Your task to perform on an android device: Go to network settings Image 0: 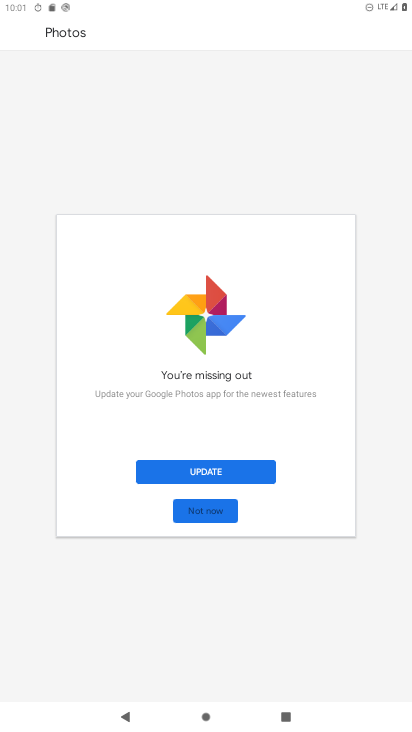
Step 0: drag from (204, 11) to (255, 574)
Your task to perform on an android device: Go to network settings Image 1: 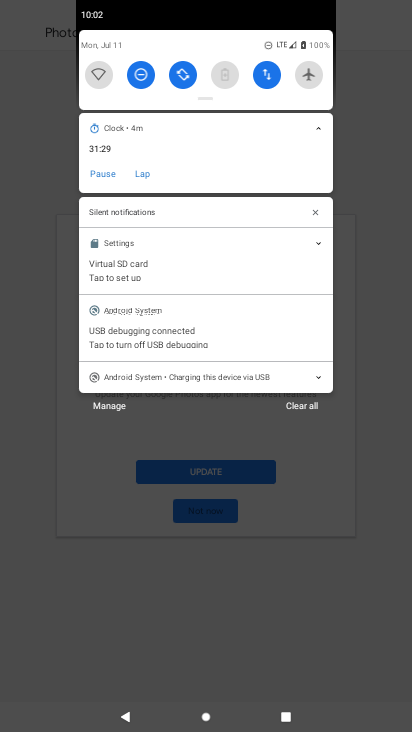
Step 1: click (271, 81)
Your task to perform on an android device: Go to network settings Image 2: 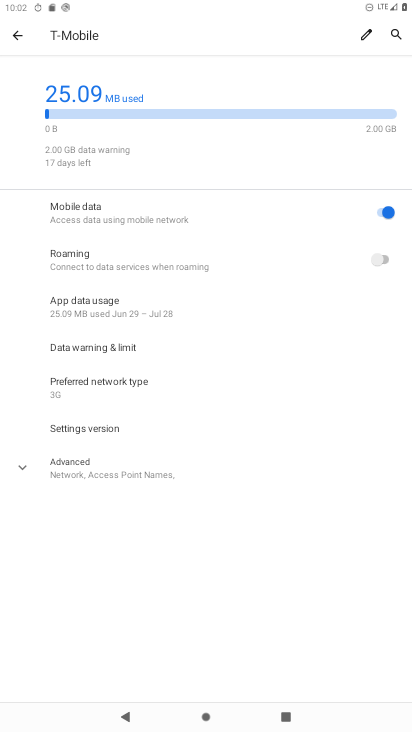
Step 2: task complete